Your task to perform on an android device: change timer sound Image 0: 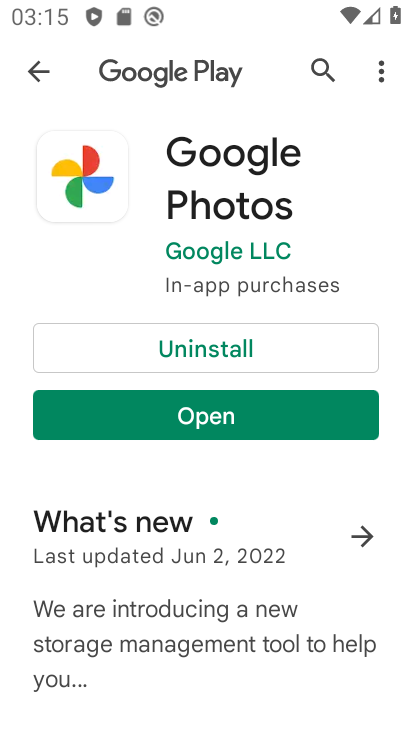
Step 0: press home button
Your task to perform on an android device: change timer sound Image 1: 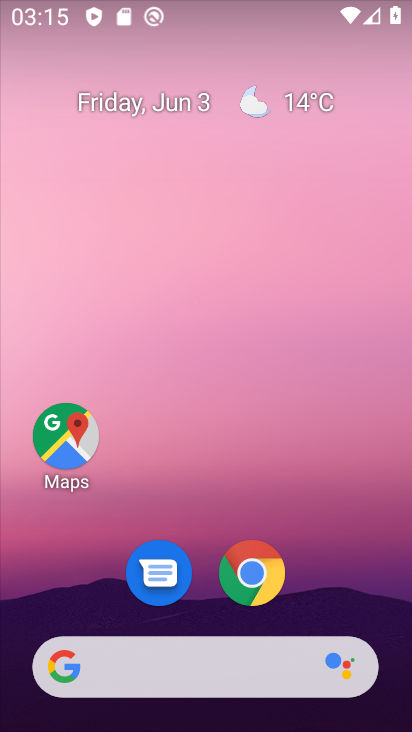
Step 1: drag from (177, 584) to (251, 12)
Your task to perform on an android device: change timer sound Image 2: 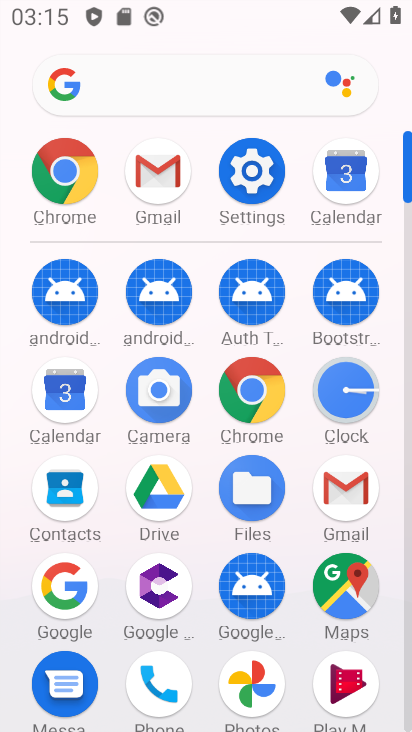
Step 2: click (345, 379)
Your task to perform on an android device: change timer sound Image 3: 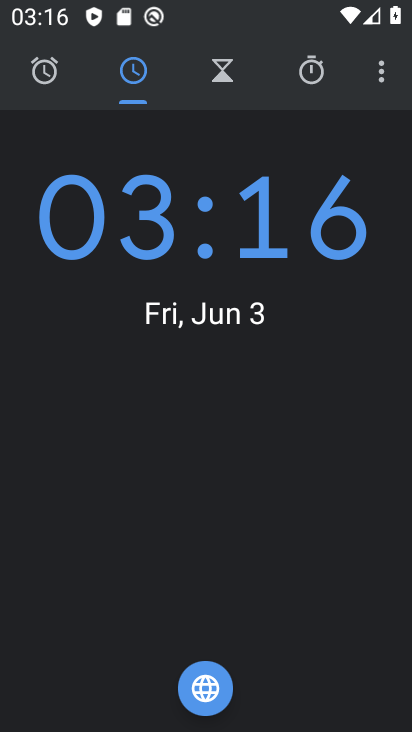
Step 3: click (390, 80)
Your task to perform on an android device: change timer sound Image 4: 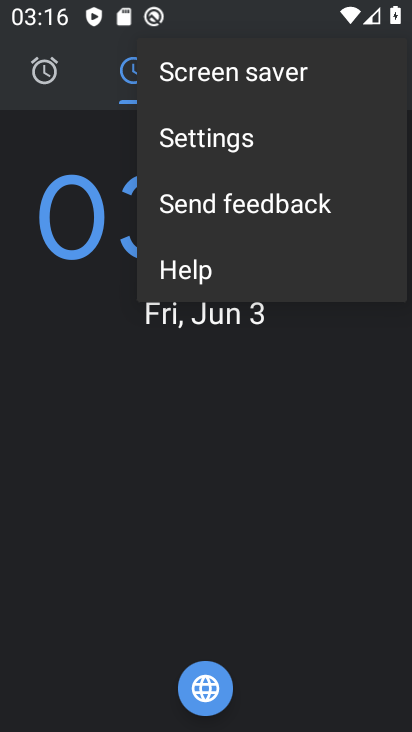
Step 4: click (278, 134)
Your task to perform on an android device: change timer sound Image 5: 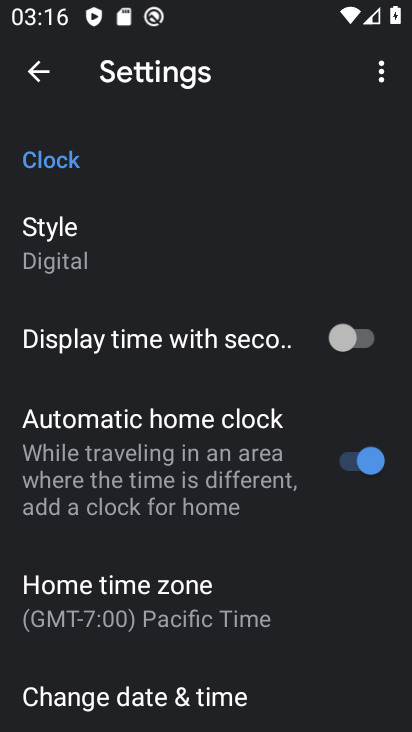
Step 5: drag from (233, 592) to (267, 31)
Your task to perform on an android device: change timer sound Image 6: 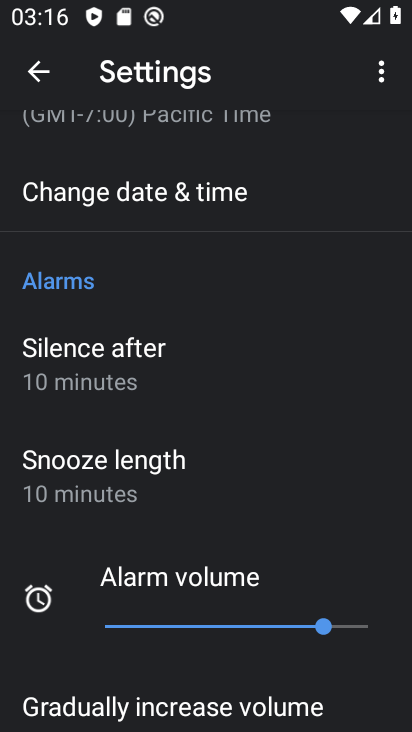
Step 6: drag from (170, 356) to (197, 99)
Your task to perform on an android device: change timer sound Image 7: 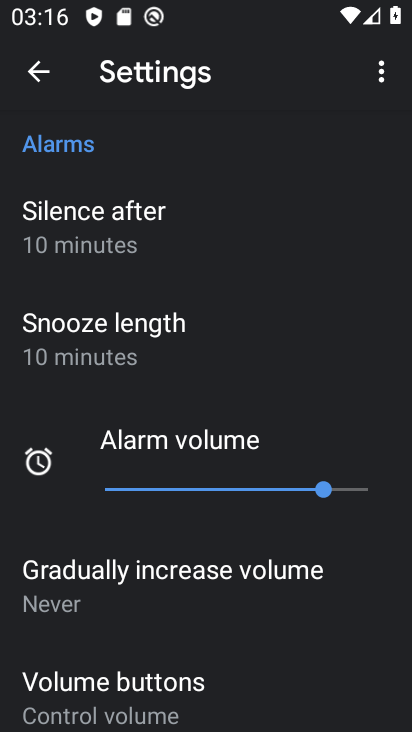
Step 7: drag from (264, 232) to (251, 730)
Your task to perform on an android device: change timer sound Image 8: 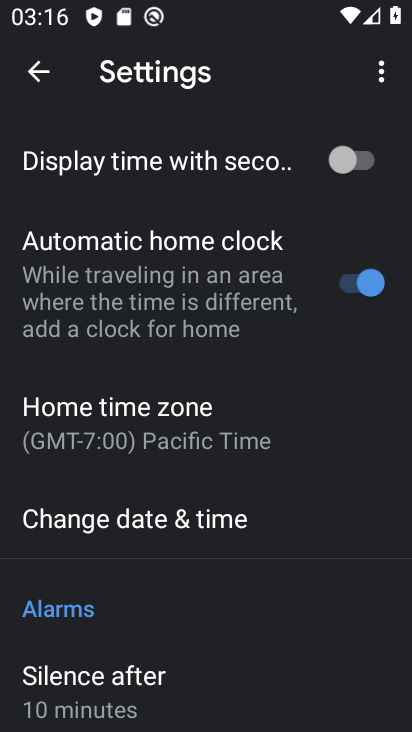
Step 8: drag from (259, 328) to (330, 102)
Your task to perform on an android device: change timer sound Image 9: 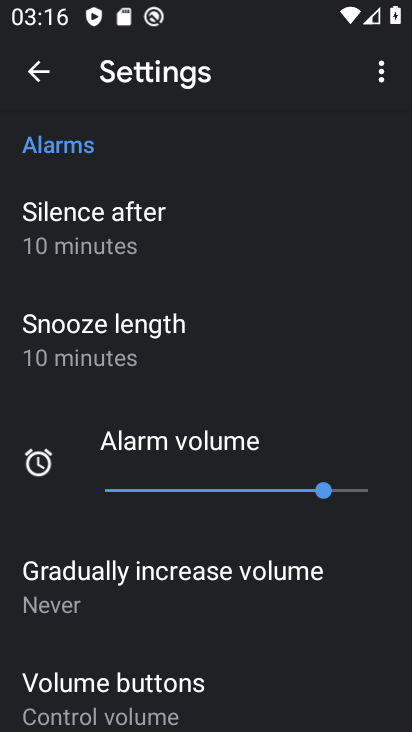
Step 9: drag from (201, 629) to (261, 80)
Your task to perform on an android device: change timer sound Image 10: 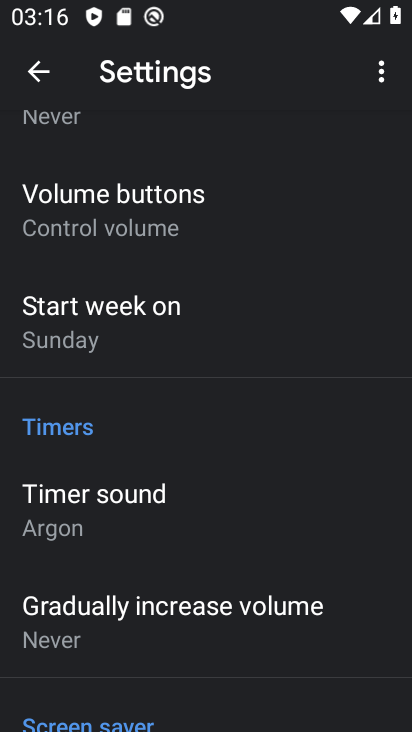
Step 10: click (159, 509)
Your task to perform on an android device: change timer sound Image 11: 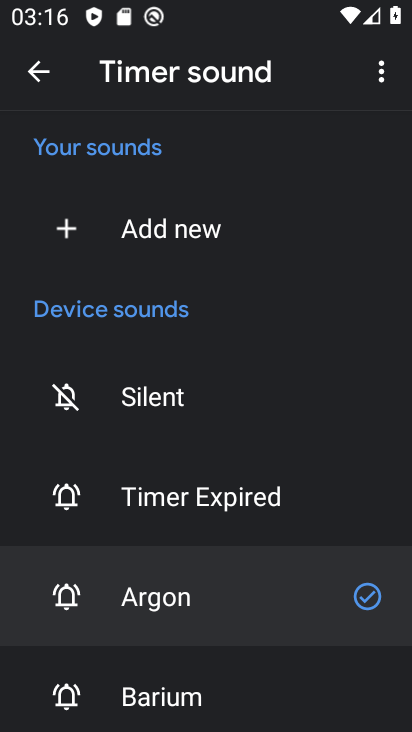
Step 11: click (172, 701)
Your task to perform on an android device: change timer sound Image 12: 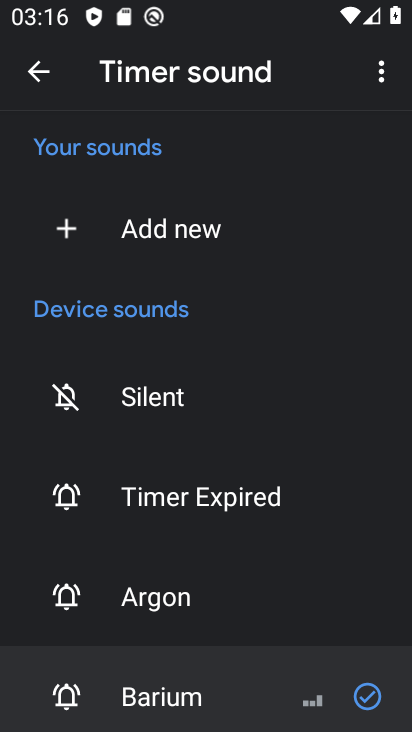
Step 12: task complete